Your task to perform on an android device: Go to display settings Image 0: 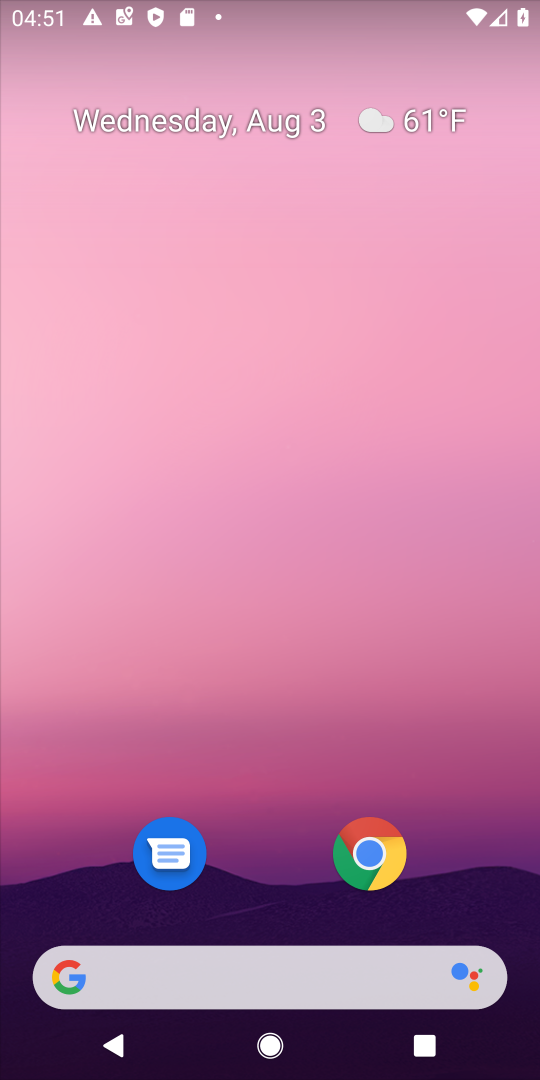
Step 0: drag from (273, 898) to (276, 105)
Your task to perform on an android device: Go to display settings Image 1: 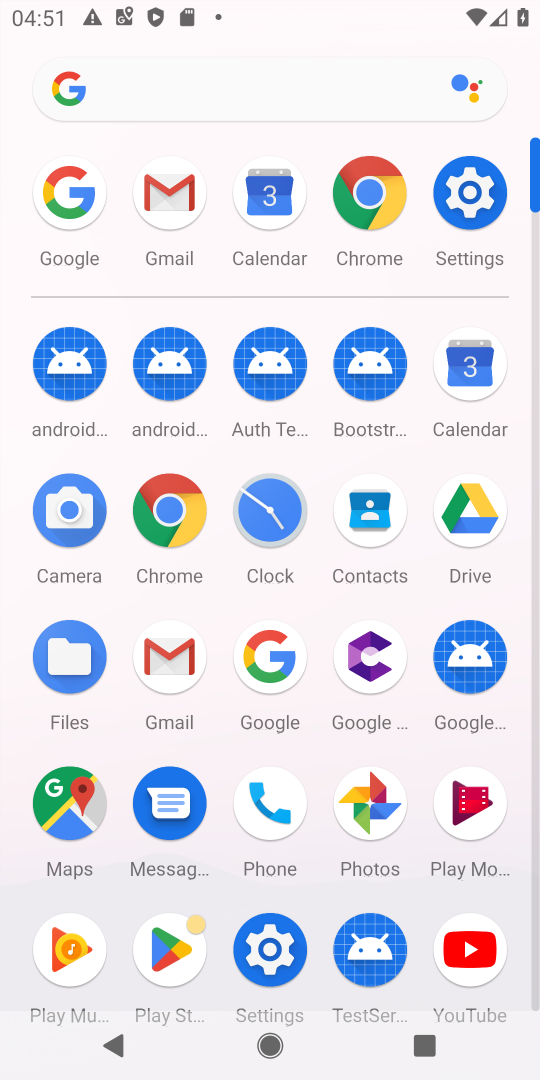
Step 1: click (465, 206)
Your task to perform on an android device: Go to display settings Image 2: 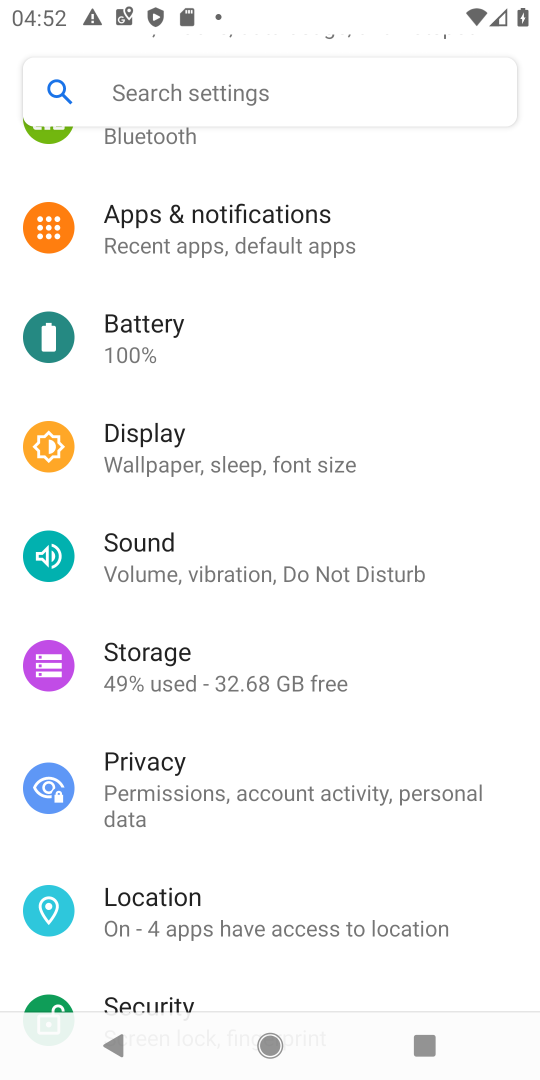
Step 2: click (140, 444)
Your task to perform on an android device: Go to display settings Image 3: 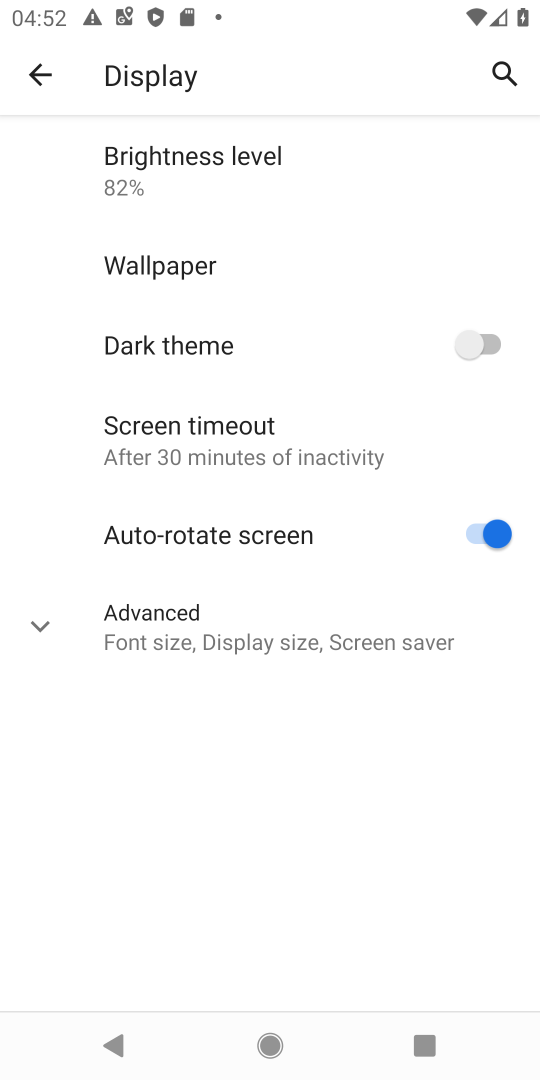
Step 3: task complete